Your task to perform on an android device: change your default location settings in chrome Image 0: 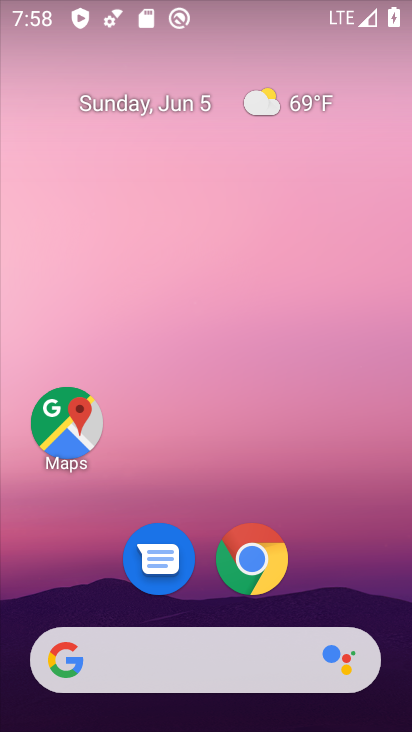
Step 0: click (255, 553)
Your task to perform on an android device: change your default location settings in chrome Image 1: 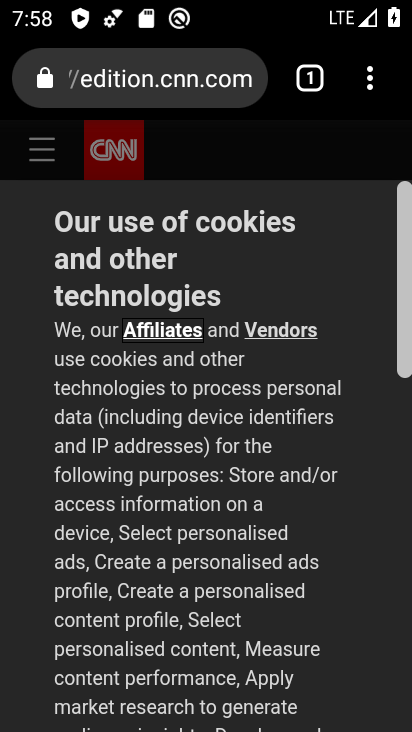
Step 1: drag from (373, 74) to (192, 608)
Your task to perform on an android device: change your default location settings in chrome Image 2: 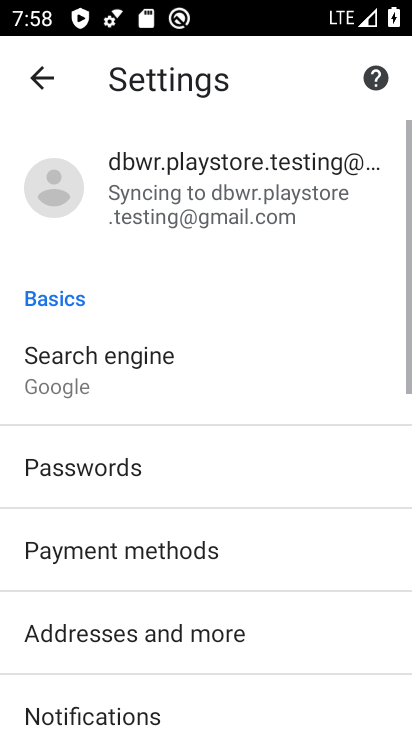
Step 2: drag from (192, 608) to (282, 133)
Your task to perform on an android device: change your default location settings in chrome Image 3: 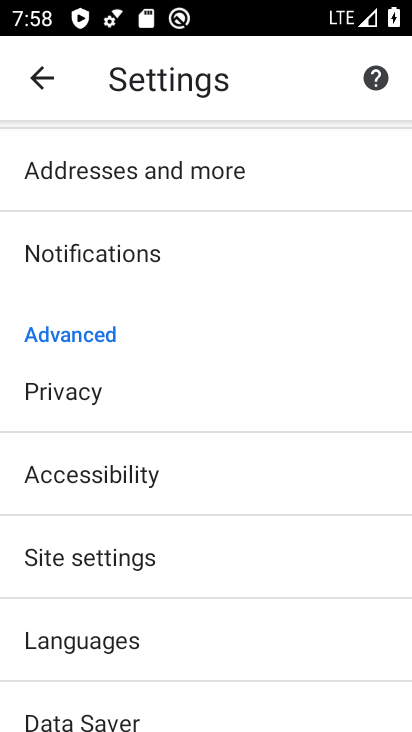
Step 3: click (130, 549)
Your task to perform on an android device: change your default location settings in chrome Image 4: 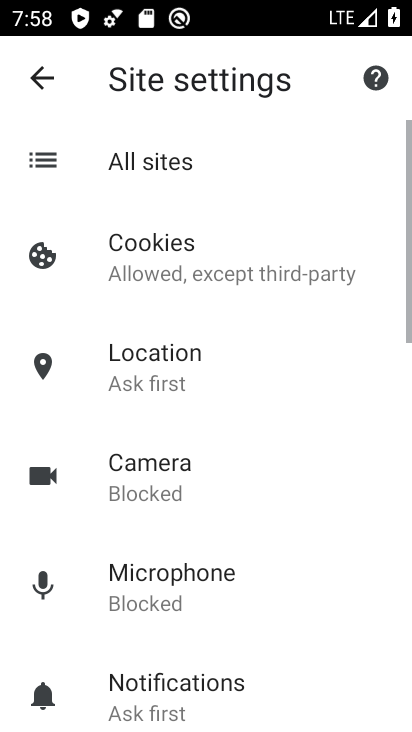
Step 4: click (183, 353)
Your task to perform on an android device: change your default location settings in chrome Image 5: 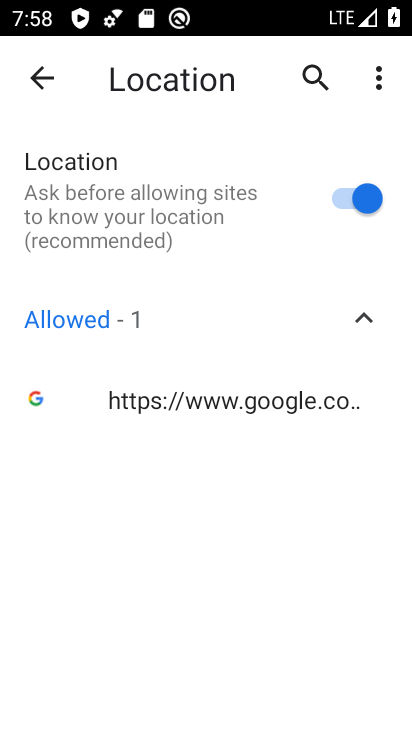
Step 5: click (342, 195)
Your task to perform on an android device: change your default location settings in chrome Image 6: 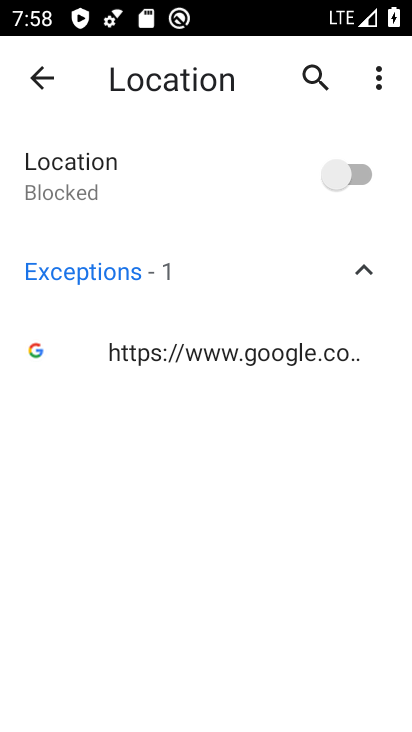
Step 6: task complete